Your task to perform on an android device: turn off location history Image 0: 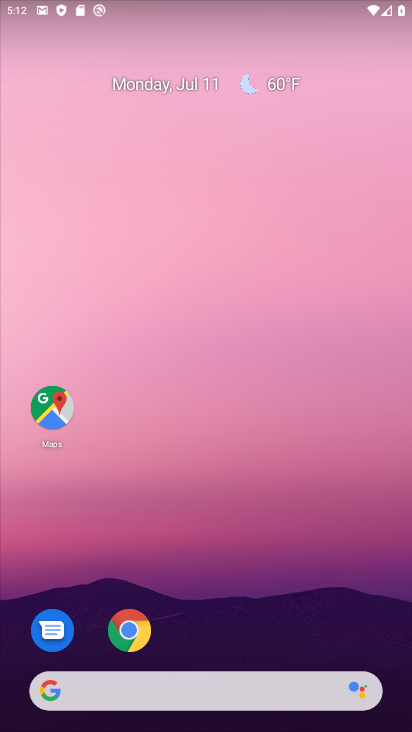
Step 0: press home button
Your task to perform on an android device: turn off location history Image 1: 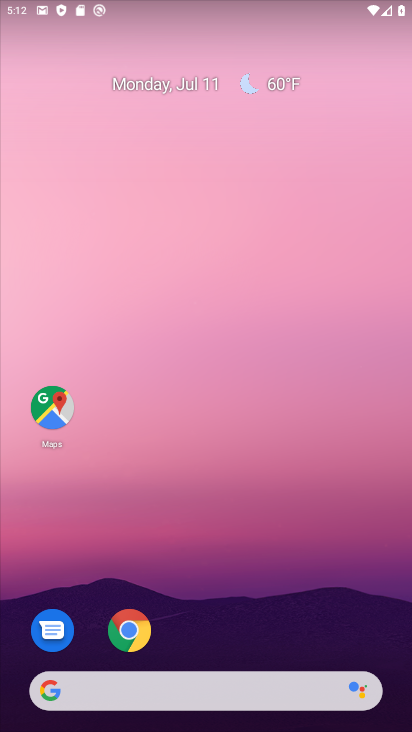
Step 1: drag from (205, 350) to (221, 103)
Your task to perform on an android device: turn off location history Image 2: 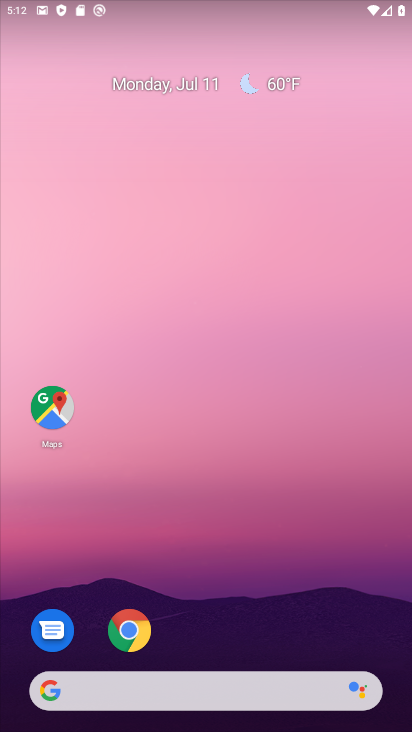
Step 2: drag from (196, 576) to (181, 158)
Your task to perform on an android device: turn off location history Image 3: 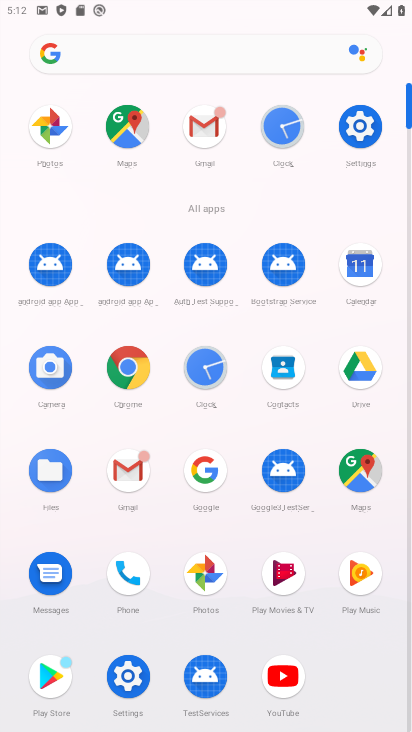
Step 3: click (355, 116)
Your task to perform on an android device: turn off location history Image 4: 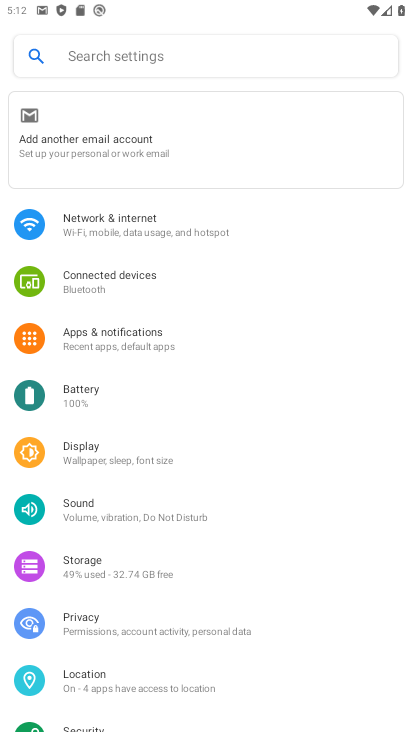
Step 4: click (88, 689)
Your task to perform on an android device: turn off location history Image 5: 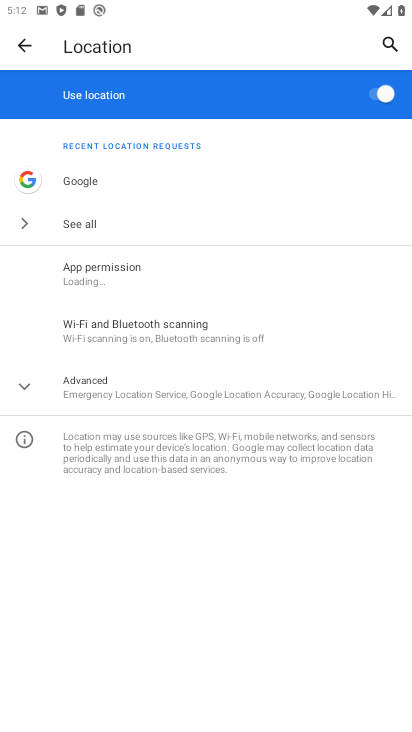
Step 5: click (99, 385)
Your task to perform on an android device: turn off location history Image 6: 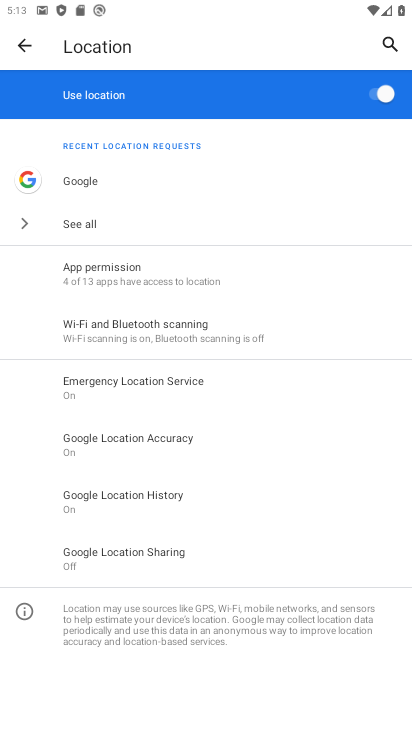
Step 6: click (82, 502)
Your task to perform on an android device: turn off location history Image 7: 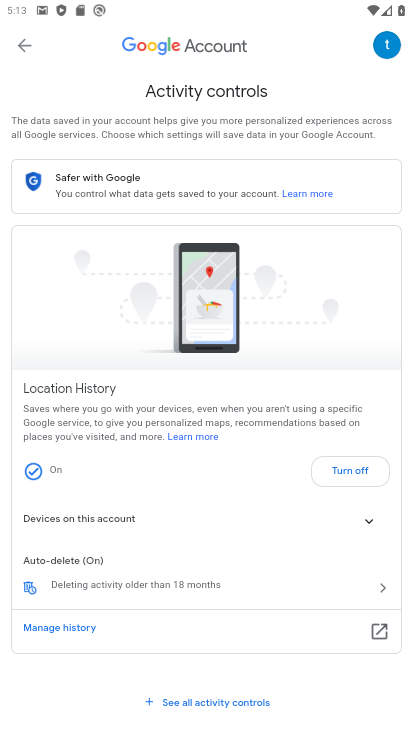
Step 7: click (357, 469)
Your task to perform on an android device: turn off location history Image 8: 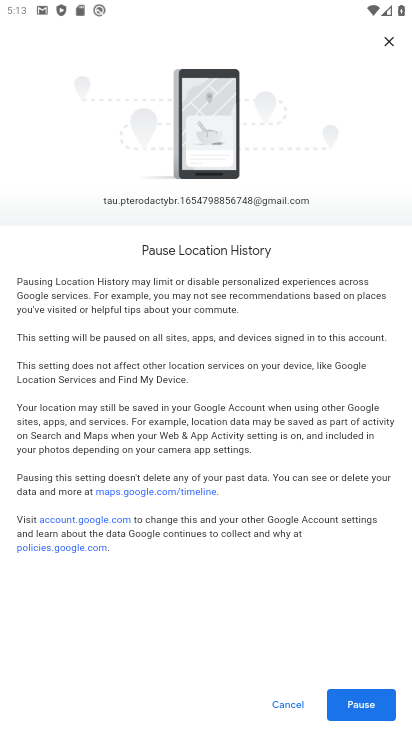
Step 8: click (355, 697)
Your task to perform on an android device: turn off location history Image 9: 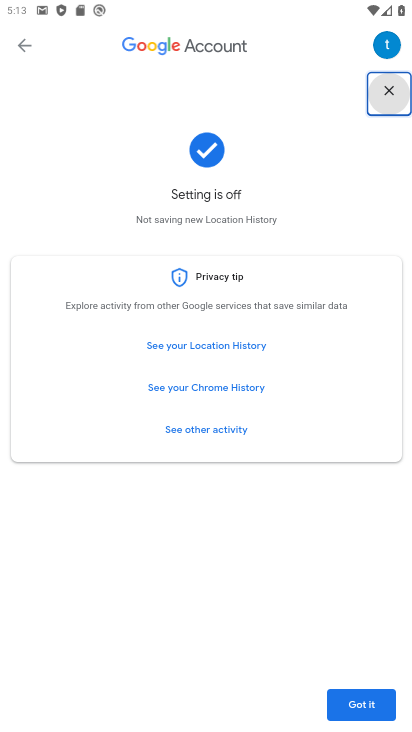
Step 9: click (354, 704)
Your task to perform on an android device: turn off location history Image 10: 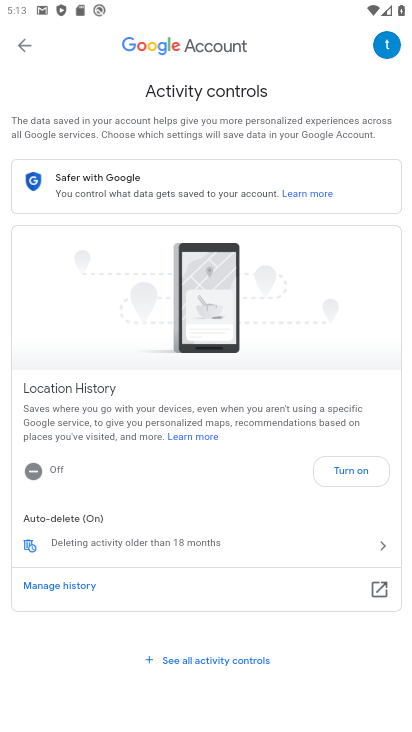
Step 10: task complete